Your task to perform on an android device: turn on the 24-hour format for clock Image 0: 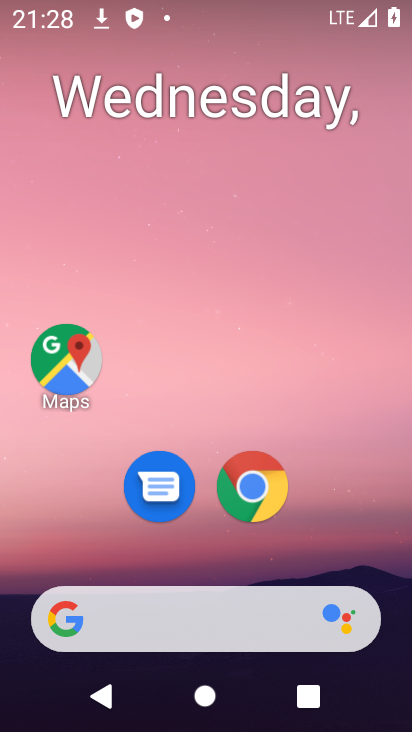
Step 0: drag from (153, 560) to (260, 3)
Your task to perform on an android device: turn on the 24-hour format for clock Image 1: 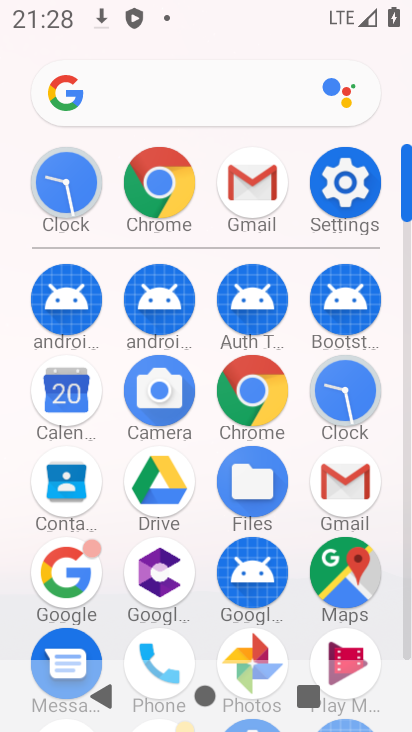
Step 1: click (345, 385)
Your task to perform on an android device: turn on the 24-hour format for clock Image 2: 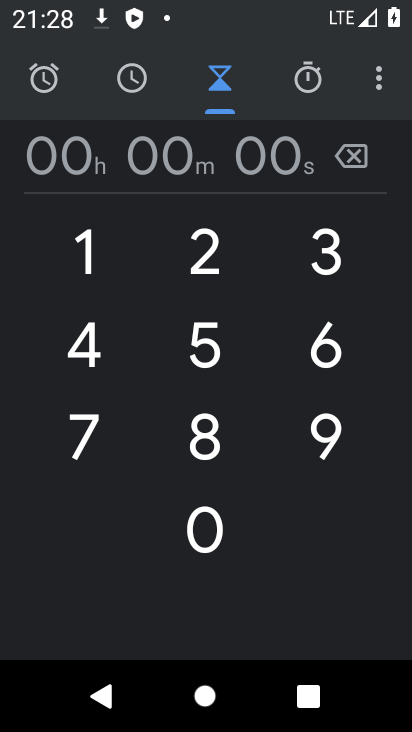
Step 2: click (379, 91)
Your task to perform on an android device: turn on the 24-hour format for clock Image 3: 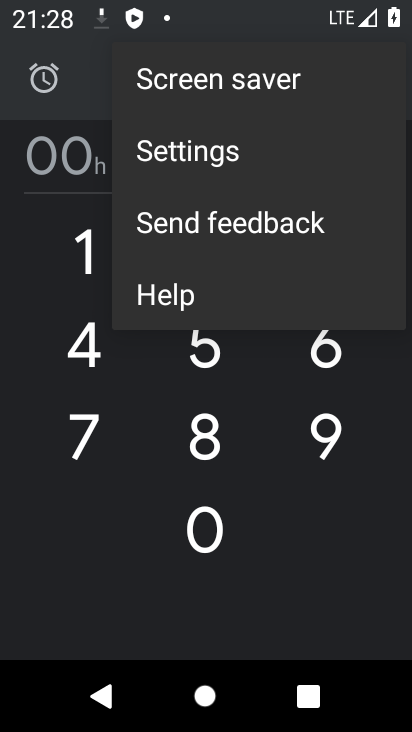
Step 3: click (204, 151)
Your task to perform on an android device: turn on the 24-hour format for clock Image 4: 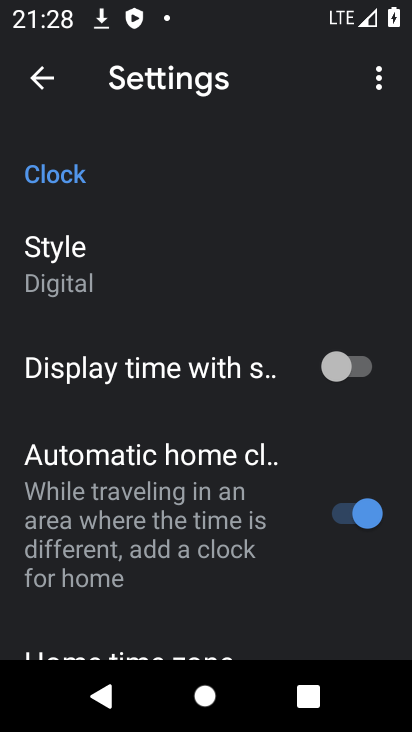
Step 4: drag from (154, 578) to (213, 227)
Your task to perform on an android device: turn on the 24-hour format for clock Image 5: 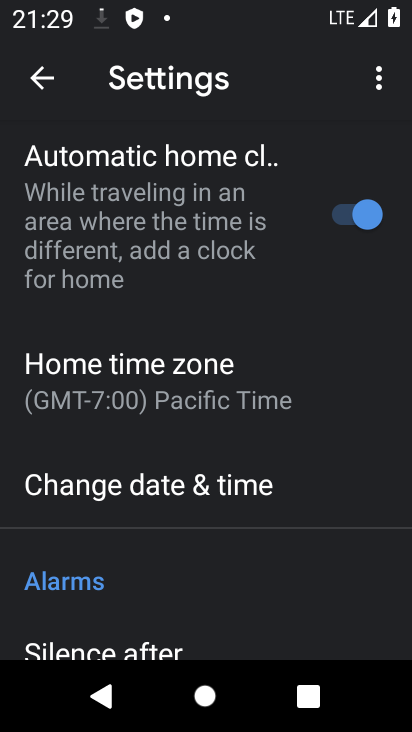
Step 5: click (140, 481)
Your task to perform on an android device: turn on the 24-hour format for clock Image 6: 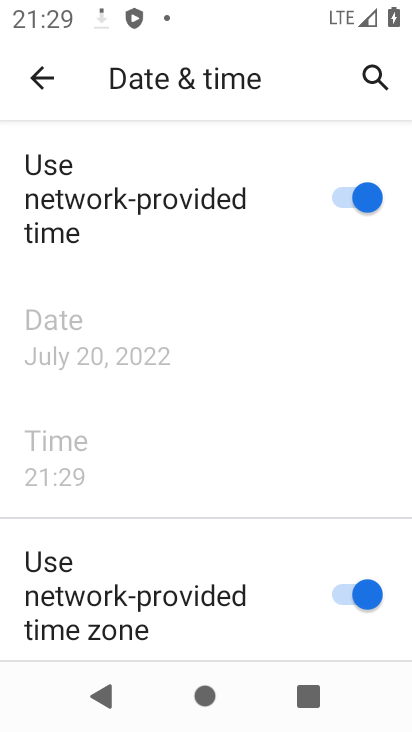
Step 6: task complete